Your task to perform on an android device: check android version Image 0: 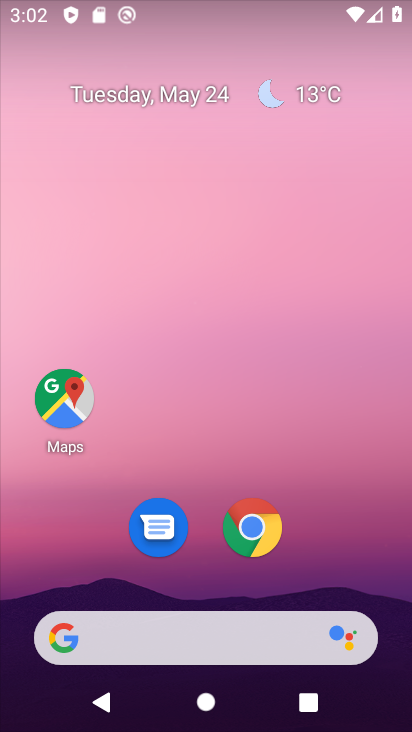
Step 0: drag from (188, 647) to (342, 104)
Your task to perform on an android device: check android version Image 1: 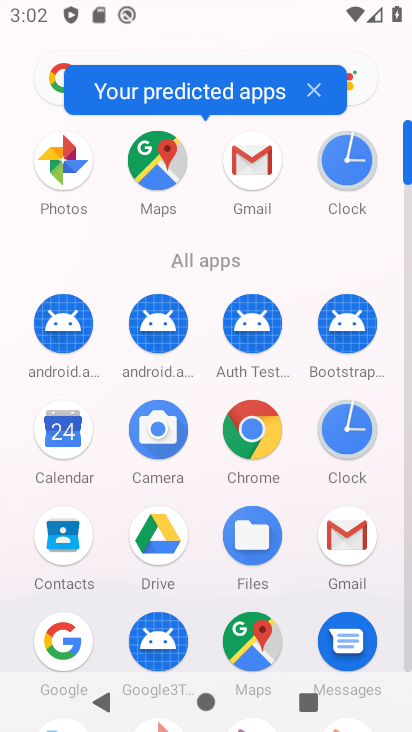
Step 1: drag from (205, 536) to (233, 71)
Your task to perform on an android device: check android version Image 2: 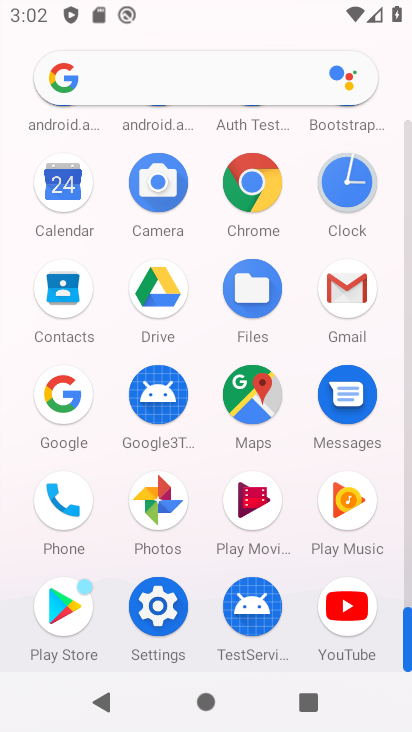
Step 2: click (158, 601)
Your task to perform on an android device: check android version Image 3: 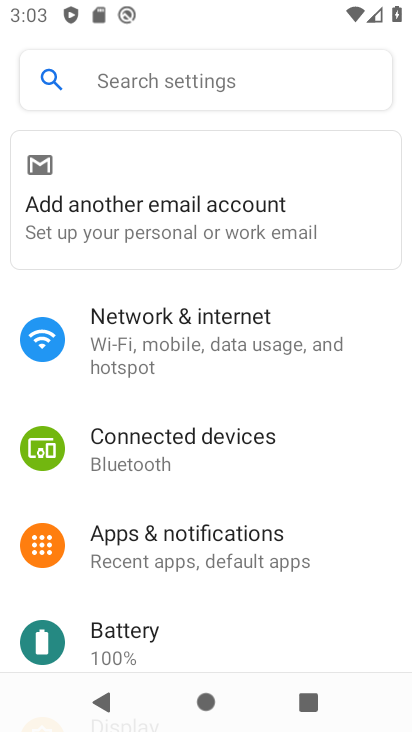
Step 3: drag from (209, 608) to (246, 37)
Your task to perform on an android device: check android version Image 4: 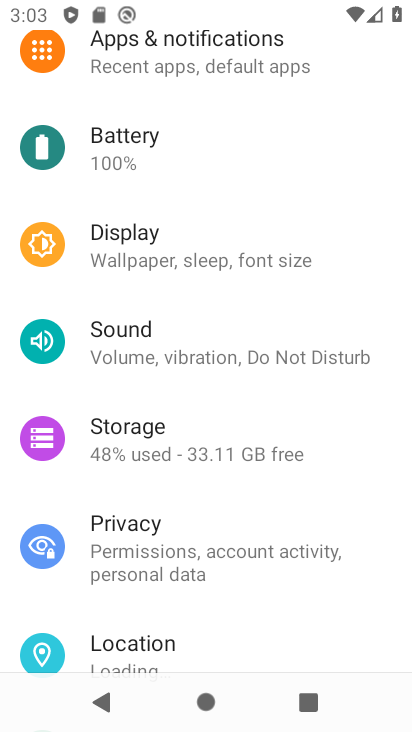
Step 4: drag from (215, 593) to (253, 69)
Your task to perform on an android device: check android version Image 5: 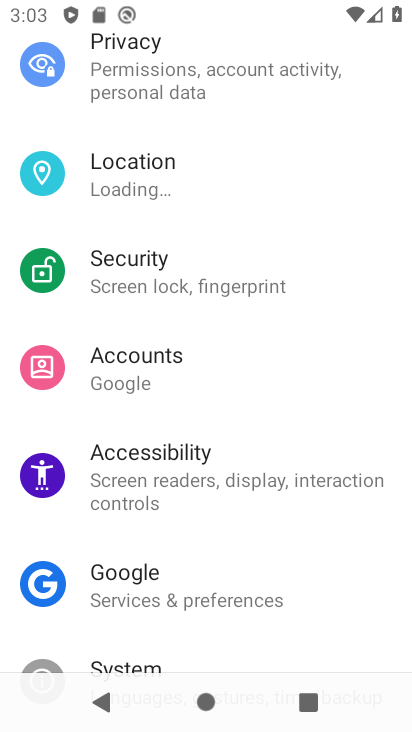
Step 5: drag from (184, 626) to (297, 93)
Your task to perform on an android device: check android version Image 6: 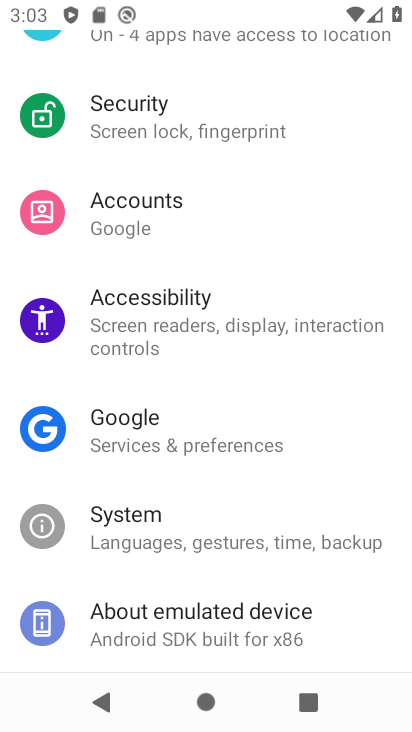
Step 6: click (150, 627)
Your task to perform on an android device: check android version Image 7: 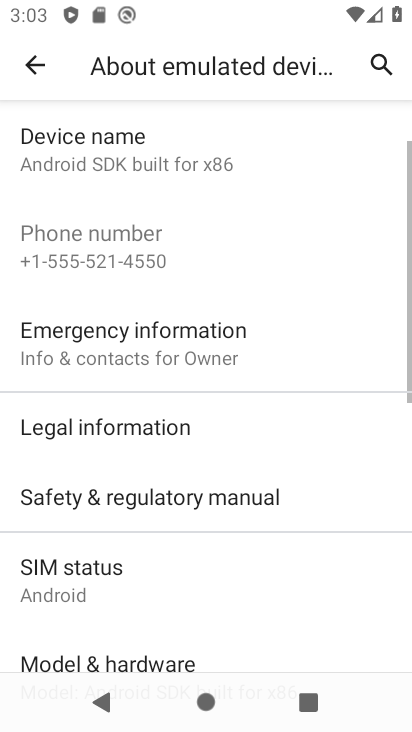
Step 7: drag from (150, 628) to (260, 154)
Your task to perform on an android device: check android version Image 8: 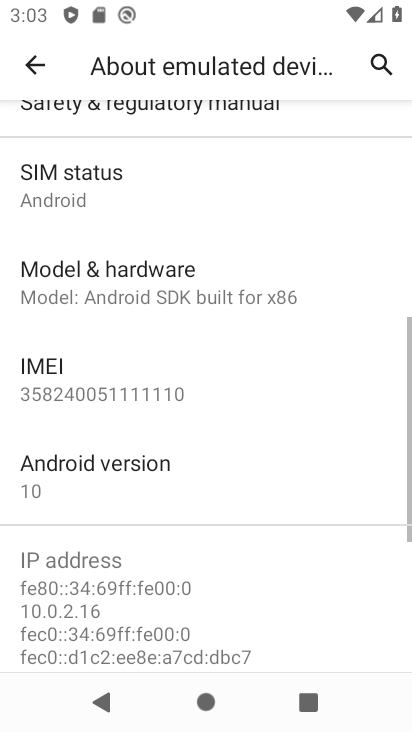
Step 8: click (130, 457)
Your task to perform on an android device: check android version Image 9: 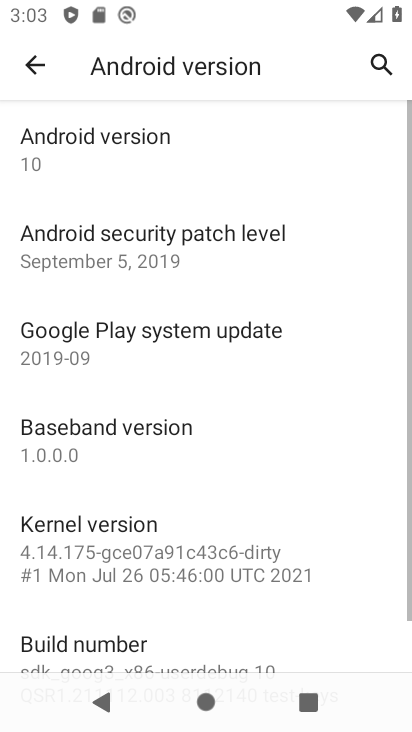
Step 9: task complete